Your task to perform on an android device: Check the weather Image 0: 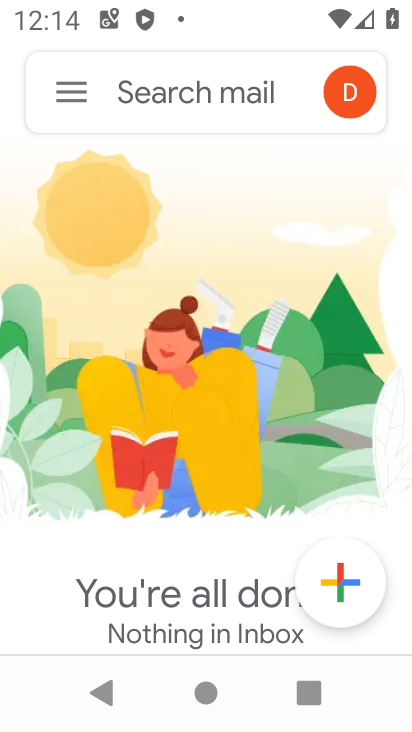
Step 0: press home button
Your task to perform on an android device: Check the weather Image 1: 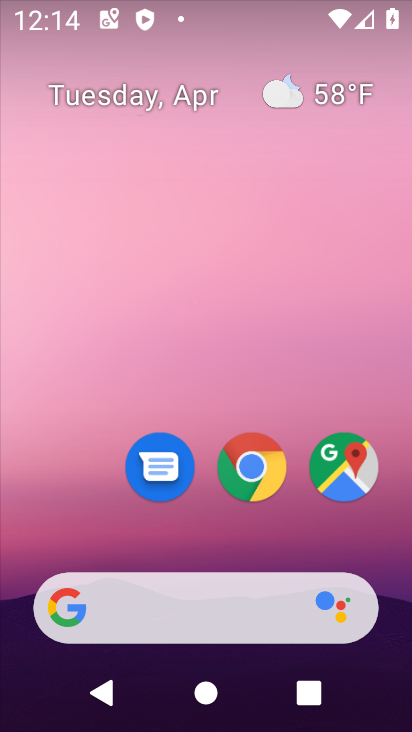
Step 1: click (223, 602)
Your task to perform on an android device: Check the weather Image 2: 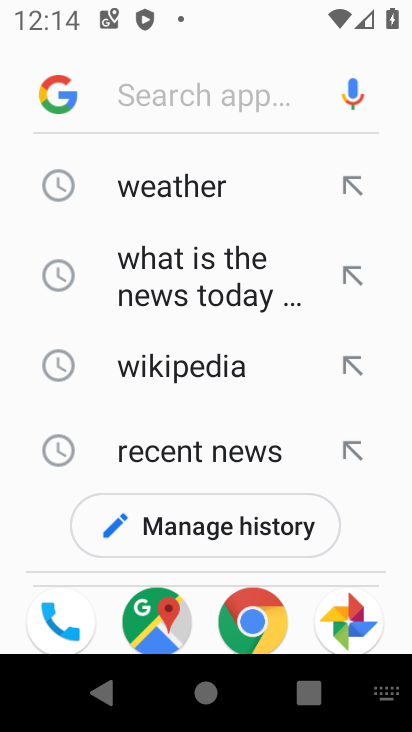
Step 2: click (215, 197)
Your task to perform on an android device: Check the weather Image 3: 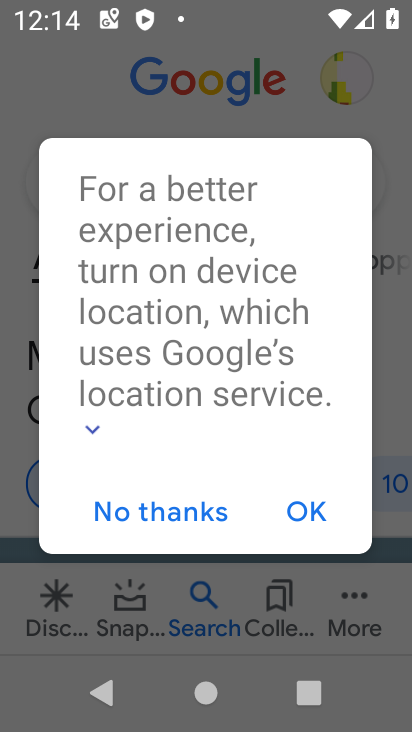
Step 3: click (316, 514)
Your task to perform on an android device: Check the weather Image 4: 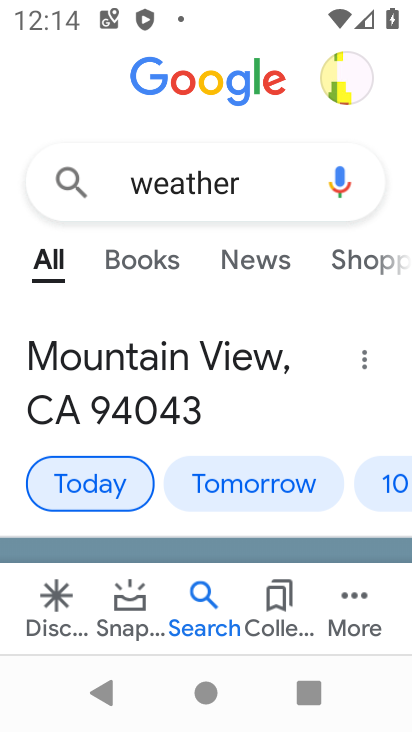
Step 4: task complete